Your task to perform on an android device: star an email in the gmail app Image 0: 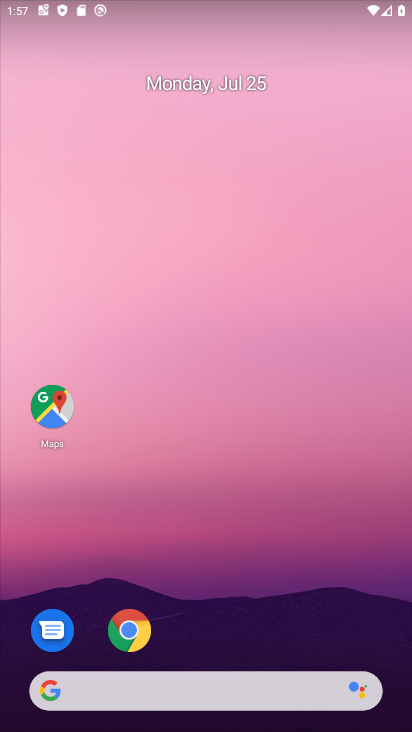
Step 0: drag from (267, 648) to (272, 30)
Your task to perform on an android device: star an email in the gmail app Image 1: 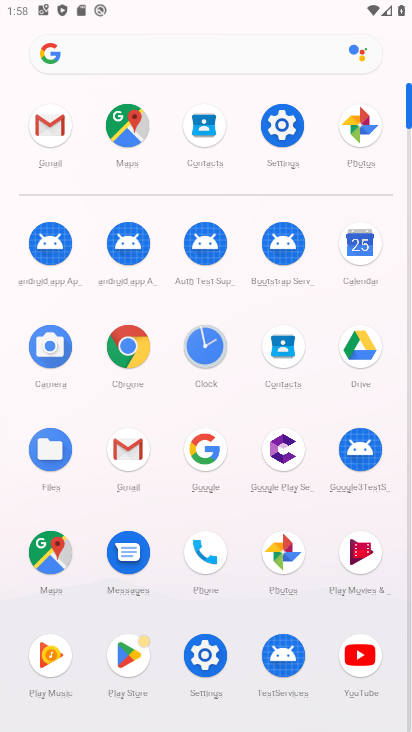
Step 1: click (52, 134)
Your task to perform on an android device: star an email in the gmail app Image 2: 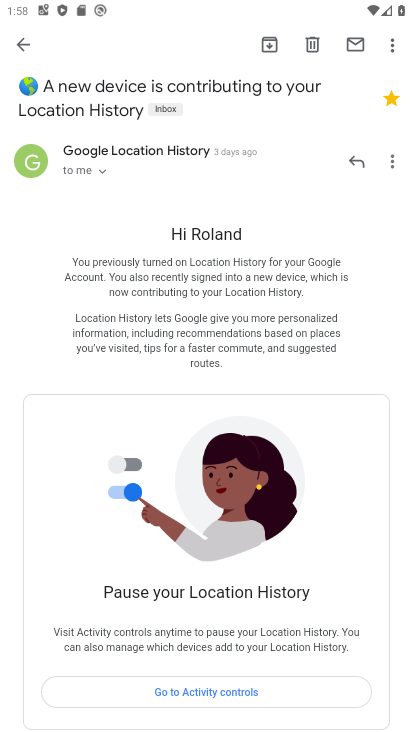
Step 2: task complete